Your task to perform on an android device: turn off wifi Image 0: 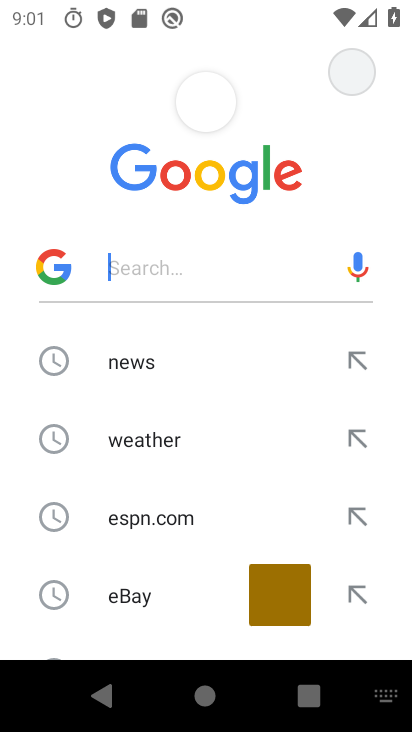
Step 0: press home button
Your task to perform on an android device: turn off wifi Image 1: 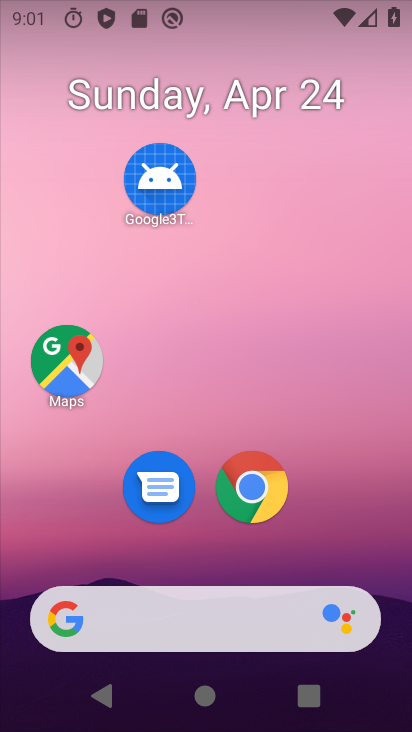
Step 1: drag from (337, 466) to (321, 173)
Your task to perform on an android device: turn off wifi Image 2: 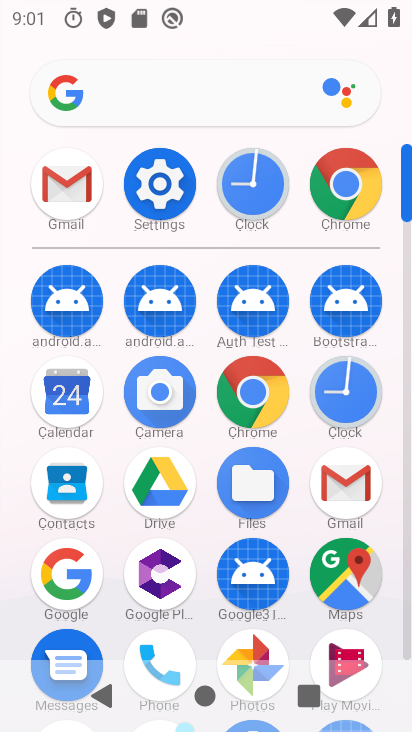
Step 2: click (157, 191)
Your task to perform on an android device: turn off wifi Image 3: 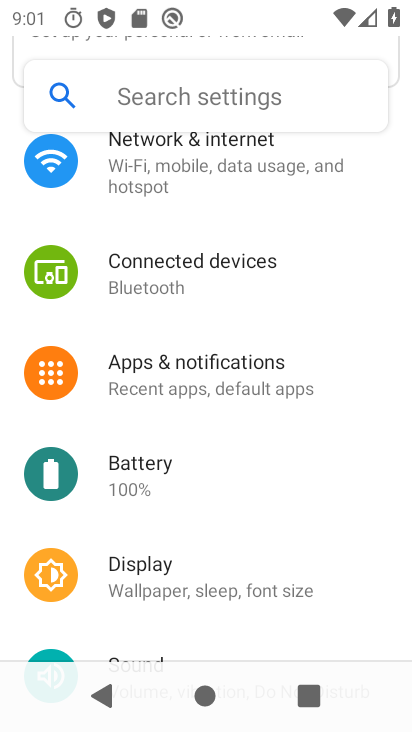
Step 3: click (162, 180)
Your task to perform on an android device: turn off wifi Image 4: 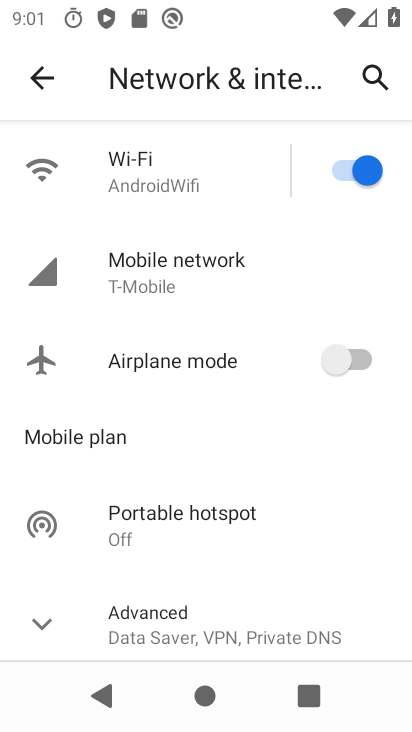
Step 4: click (343, 173)
Your task to perform on an android device: turn off wifi Image 5: 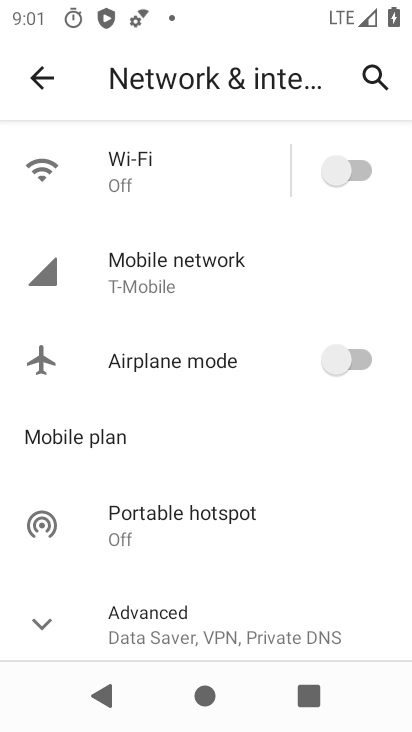
Step 5: task complete